Your task to perform on an android device: Search for pizza restaurants on Maps Image 0: 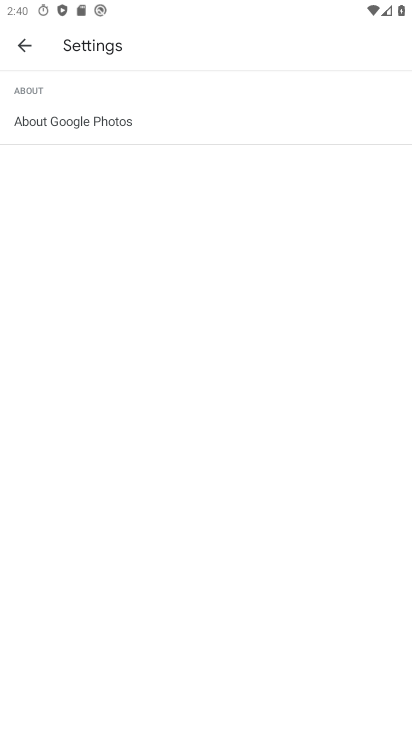
Step 0: press home button
Your task to perform on an android device: Search for pizza restaurants on Maps Image 1: 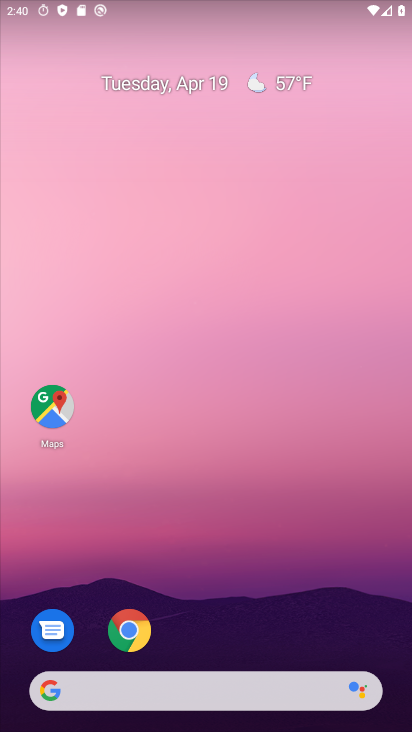
Step 1: click (48, 399)
Your task to perform on an android device: Search for pizza restaurants on Maps Image 2: 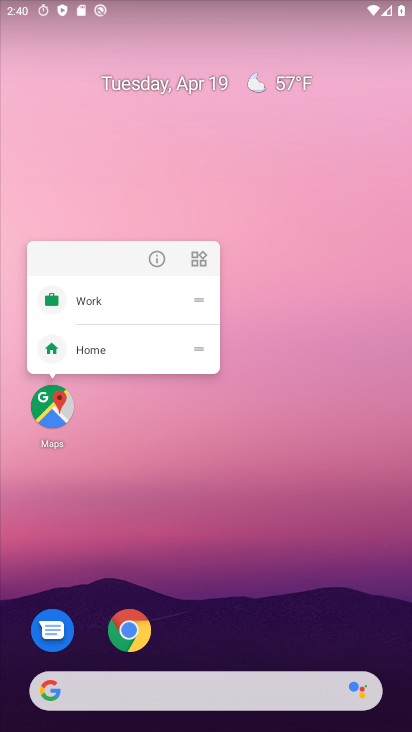
Step 2: click (44, 416)
Your task to perform on an android device: Search for pizza restaurants on Maps Image 3: 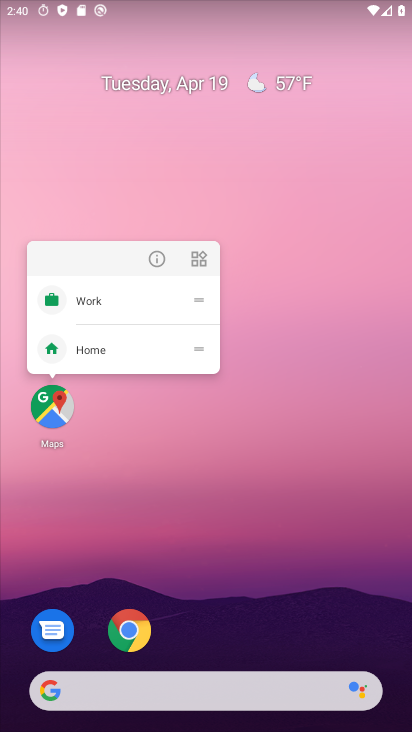
Step 3: click (50, 408)
Your task to perform on an android device: Search for pizza restaurants on Maps Image 4: 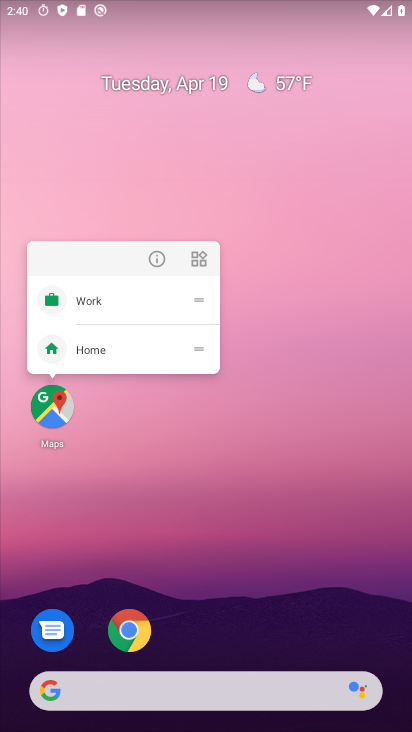
Step 4: click (47, 419)
Your task to perform on an android device: Search for pizza restaurants on Maps Image 5: 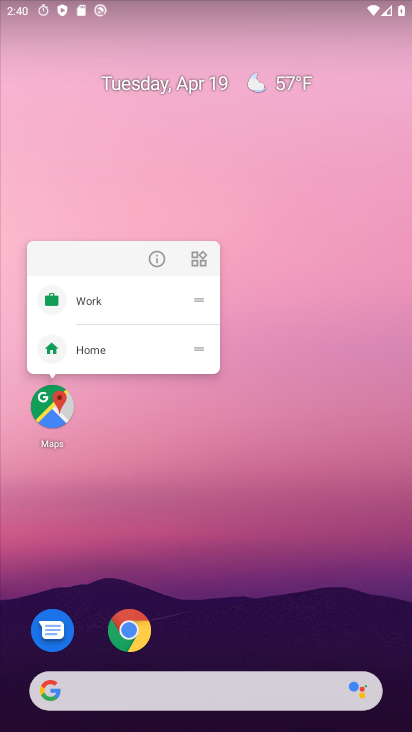
Step 5: click (48, 413)
Your task to perform on an android device: Search for pizza restaurants on Maps Image 6: 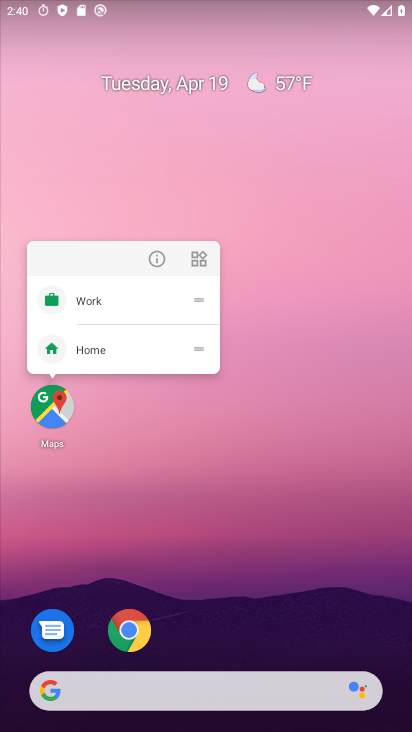
Step 6: click (47, 412)
Your task to perform on an android device: Search for pizza restaurants on Maps Image 7: 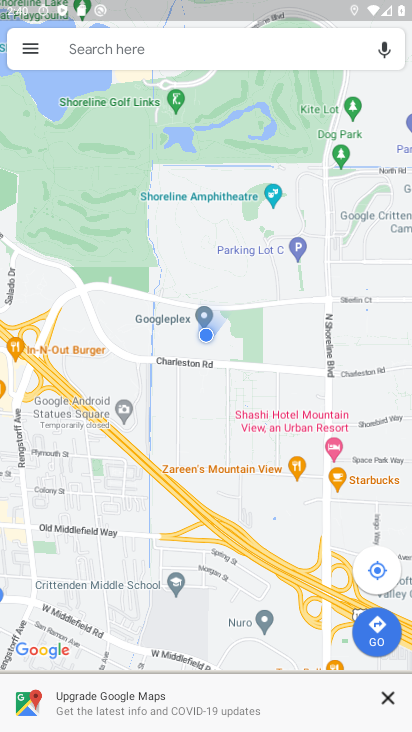
Step 7: click (122, 40)
Your task to perform on an android device: Search for pizza restaurants on Maps Image 8: 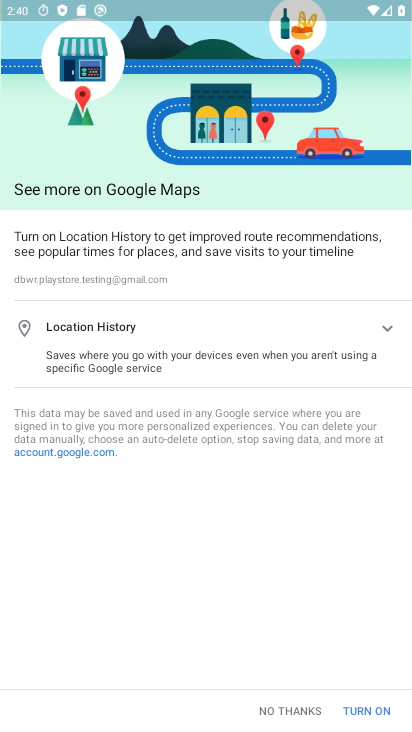
Step 8: click (310, 712)
Your task to perform on an android device: Search for pizza restaurants on Maps Image 9: 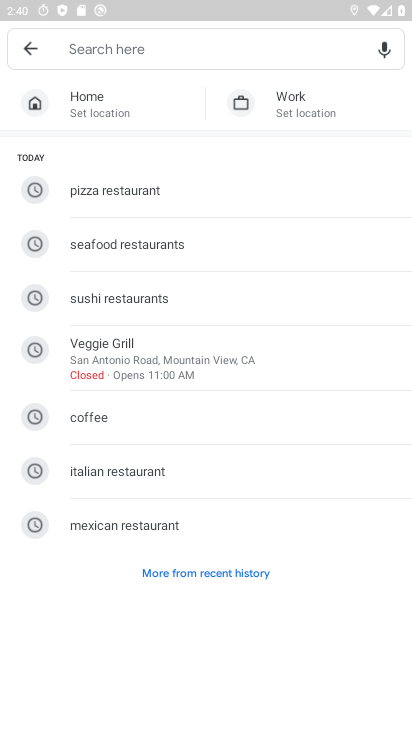
Step 9: click (142, 187)
Your task to perform on an android device: Search for pizza restaurants on Maps Image 10: 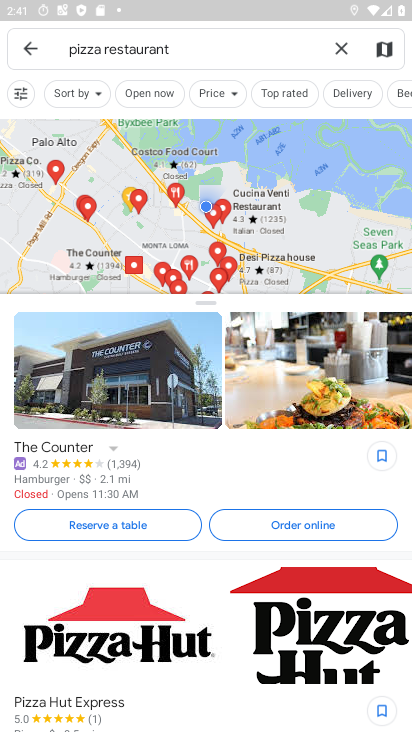
Step 10: task complete